Your task to perform on an android device: Open battery settings Image 0: 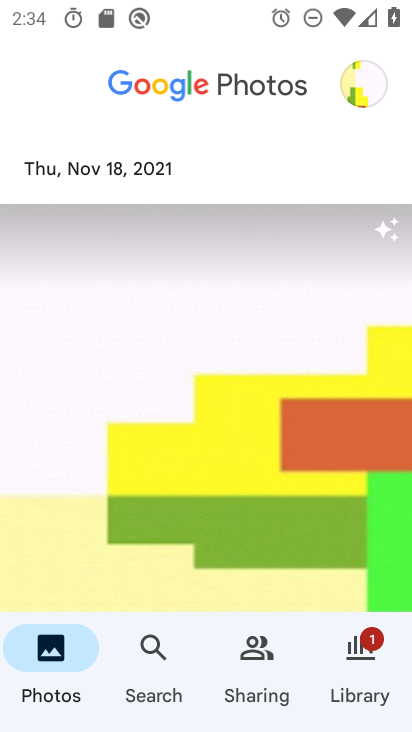
Step 0: press home button
Your task to perform on an android device: Open battery settings Image 1: 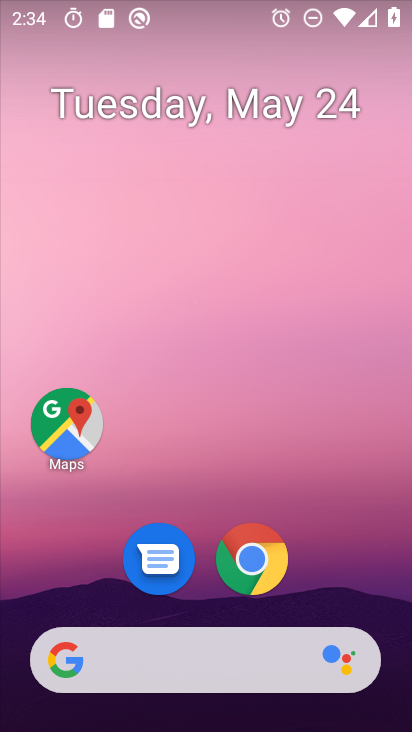
Step 1: drag from (397, 713) to (375, 139)
Your task to perform on an android device: Open battery settings Image 2: 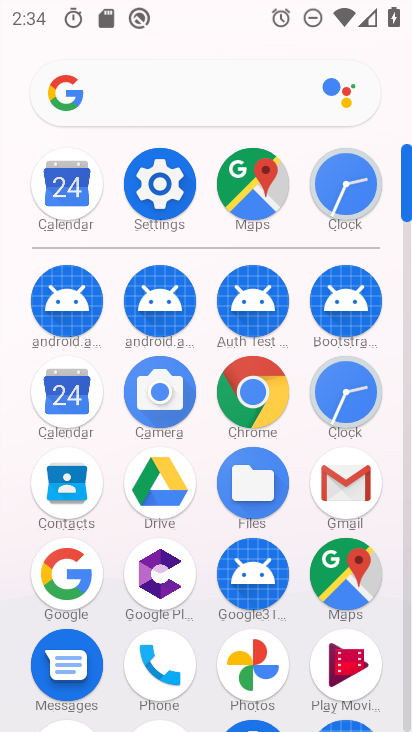
Step 2: click (155, 185)
Your task to perform on an android device: Open battery settings Image 3: 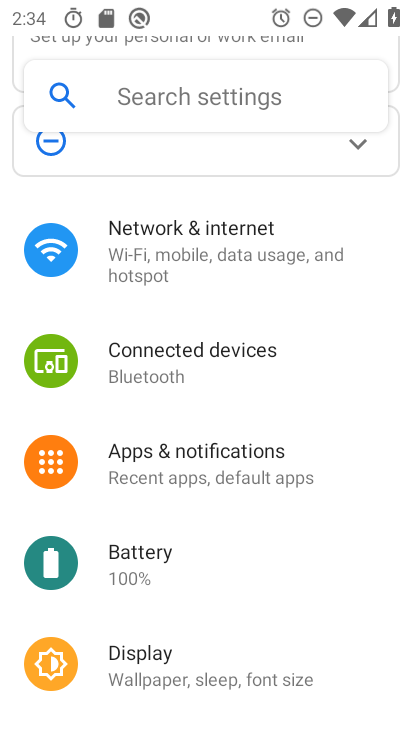
Step 3: click (109, 539)
Your task to perform on an android device: Open battery settings Image 4: 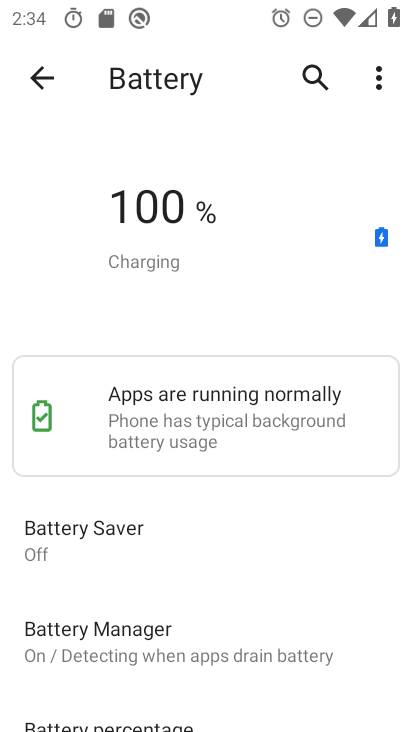
Step 4: task complete